Your task to perform on an android device: Open calendar and show me the first week of next month Image 0: 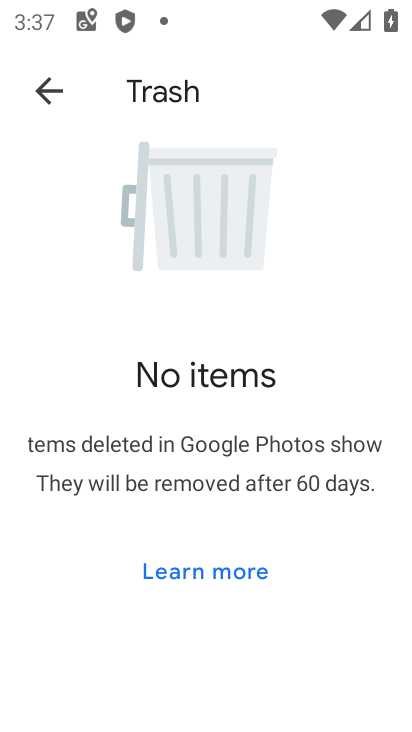
Step 0: press home button
Your task to perform on an android device: Open calendar and show me the first week of next month Image 1: 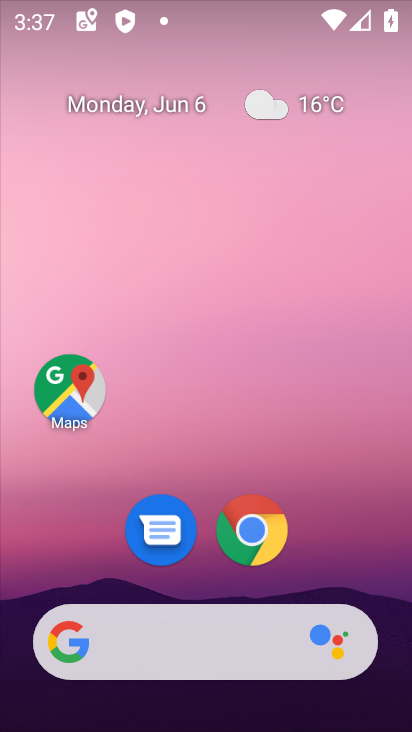
Step 1: drag from (330, 564) to (295, 159)
Your task to perform on an android device: Open calendar and show me the first week of next month Image 2: 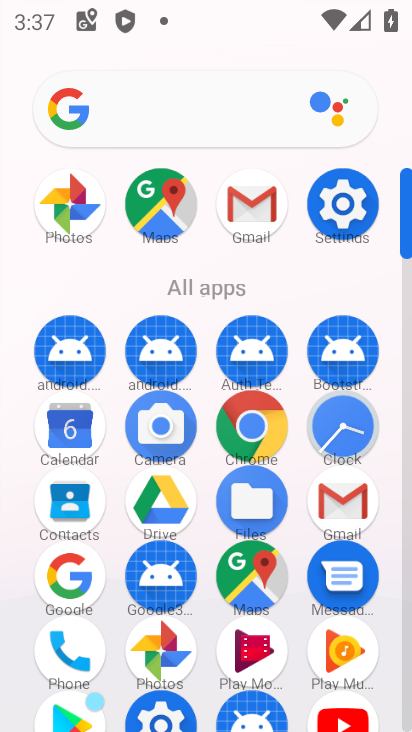
Step 2: click (69, 416)
Your task to perform on an android device: Open calendar and show me the first week of next month Image 3: 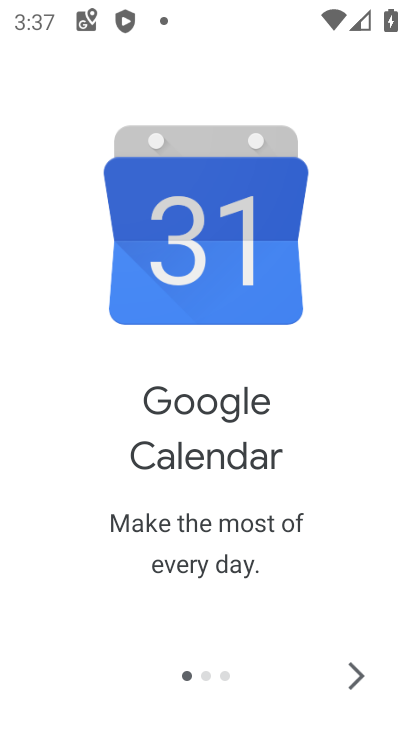
Step 3: click (358, 672)
Your task to perform on an android device: Open calendar and show me the first week of next month Image 4: 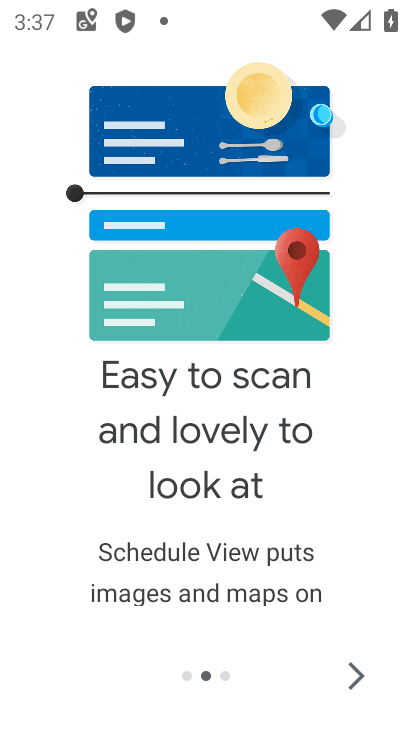
Step 4: click (362, 667)
Your task to perform on an android device: Open calendar and show me the first week of next month Image 5: 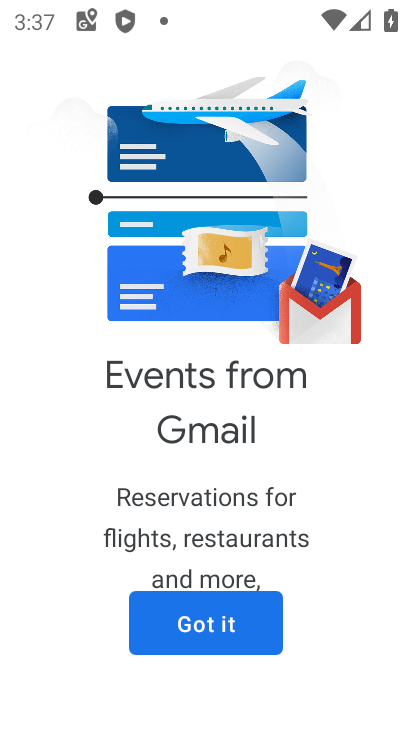
Step 5: click (271, 642)
Your task to perform on an android device: Open calendar and show me the first week of next month Image 6: 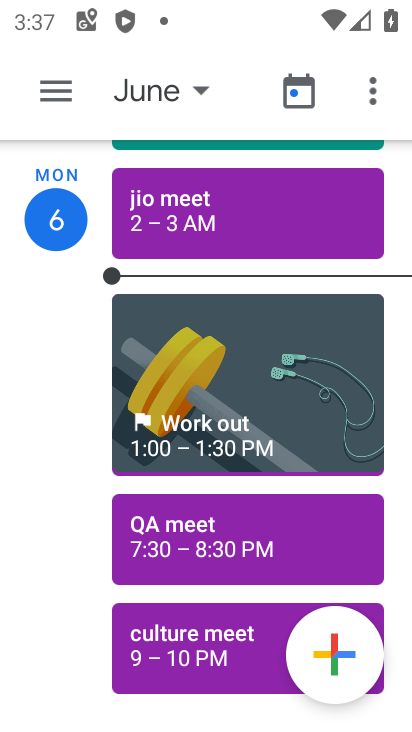
Step 6: click (155, 81)
Your task to perform on an android device: Open calendar and show me the first week of next month Image 7: 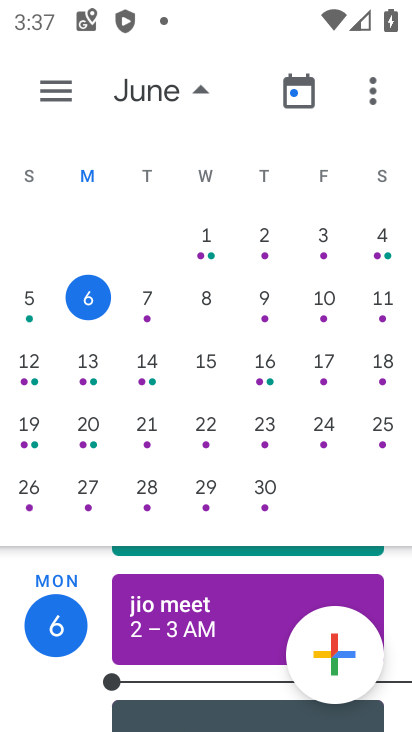
Step 7: drag from (356, 342) to (5, 330)
Your task to perform on an android device: Open calendar and show me the first week of next month Image 8: 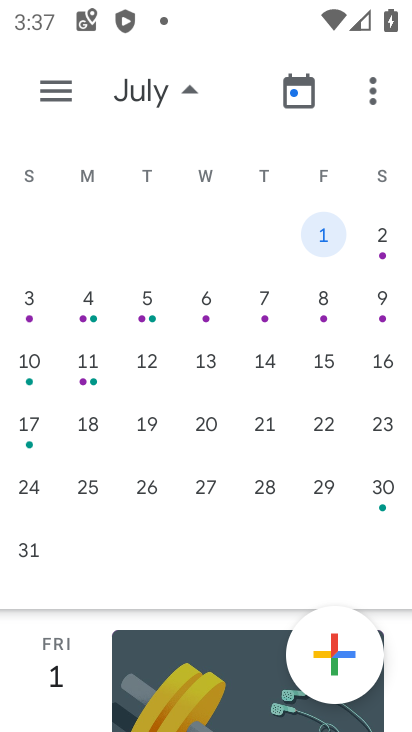
Step 8: click (62, 93)
Your task to perform on an android device: Open calendar and show me the first week of next month Image 9: 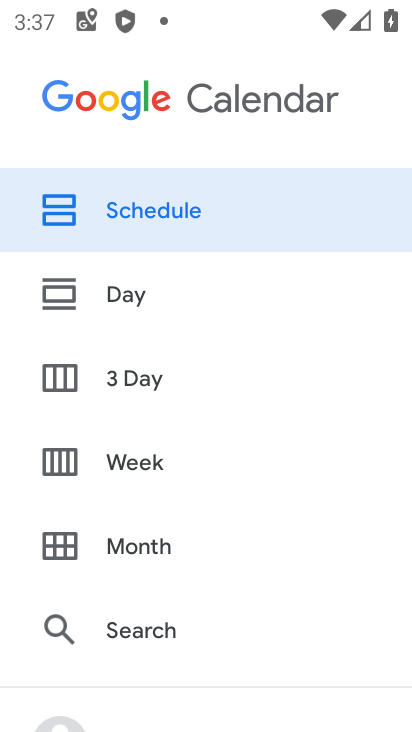
Step 9: click (156, 471)
Your task to perform on an android device: Open calendar and show me the first week of next month Image 10: 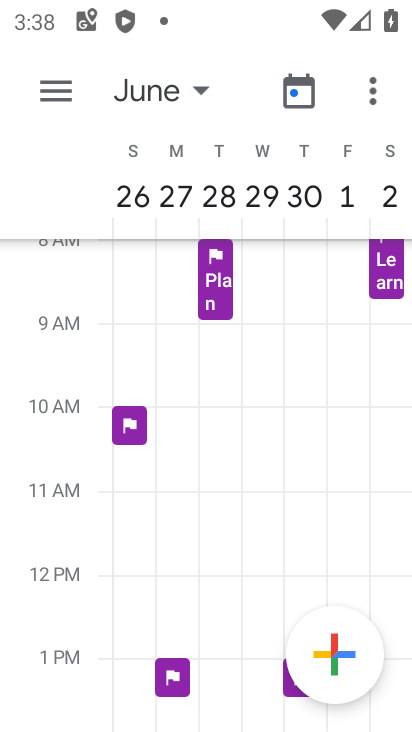
Step 10: task complete